Your task to perform on an android device: all mails in gmail Image 0: 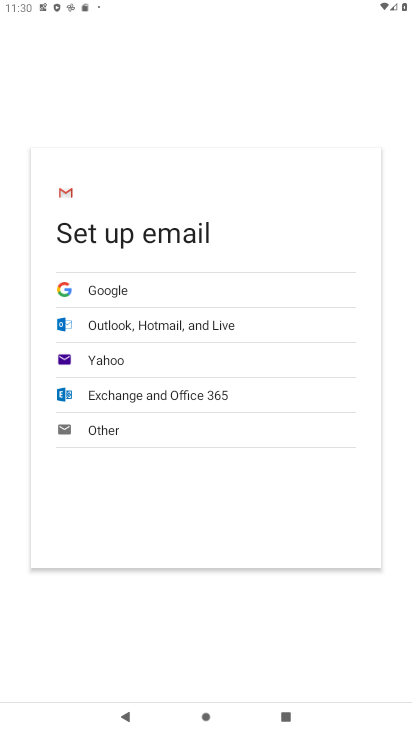
Step 0: task complete